Your task to perform on an android device: Open the map Image 0: 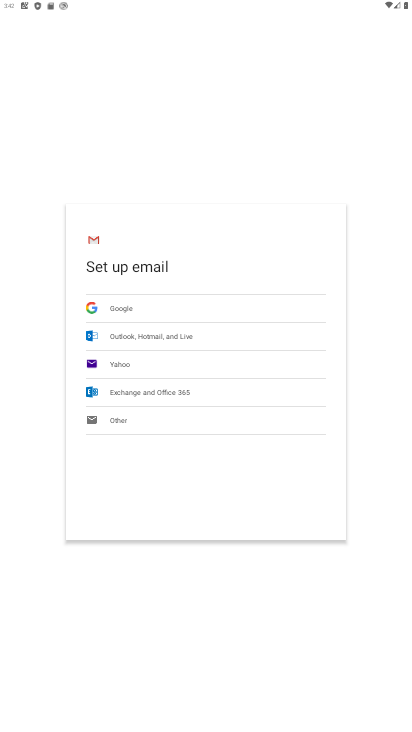
Step 0: press home button
Your task to perform on an android device: Open the map Image 1: 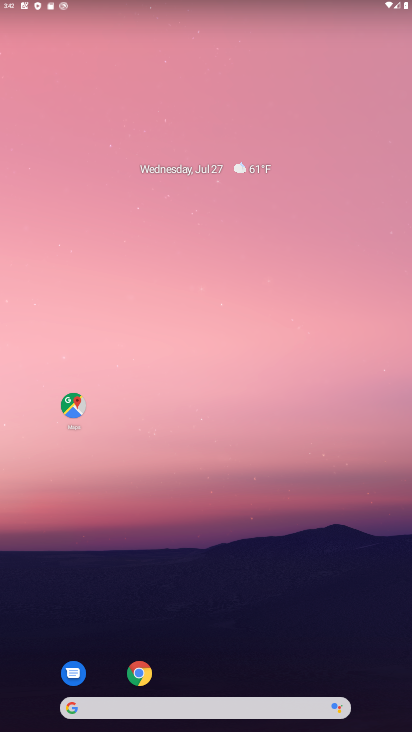
Step 1: drag from (278, 615) to (176, 0)
Your task to perform on an android device: Open the map Image 2: 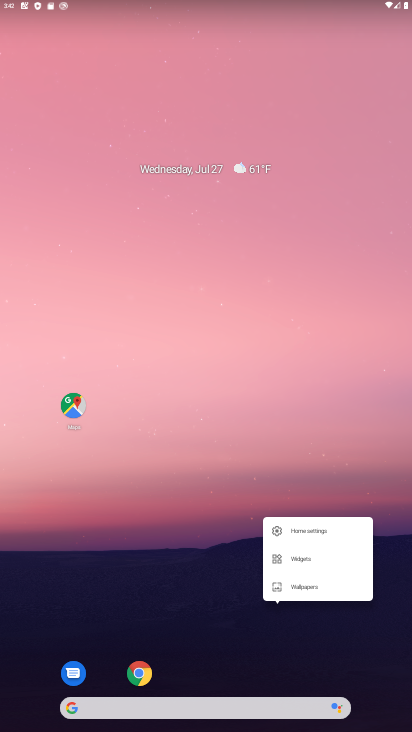
Step 2: click (229, 536)
Your task to perform on an android device: Open the map Image 3: 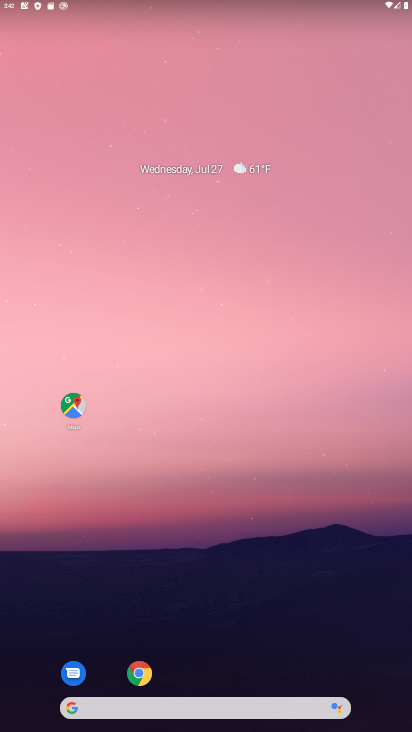
Step 3: click (73, 406)
Your task to perform on an android device: Open the map Image 4: 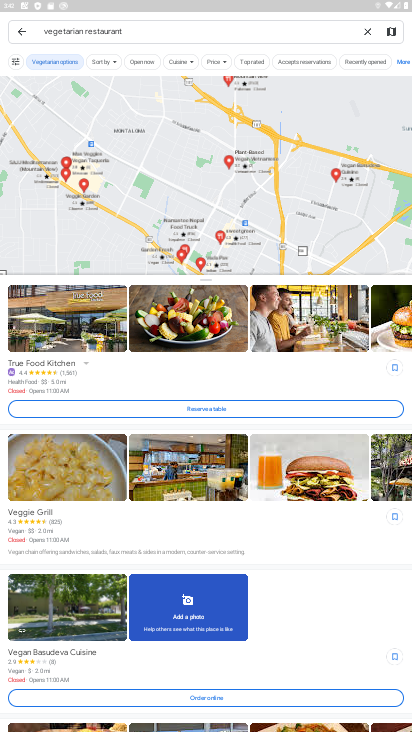
Step 4: task complete